Your task to perform on an android device: Go to Android settings Image 0: 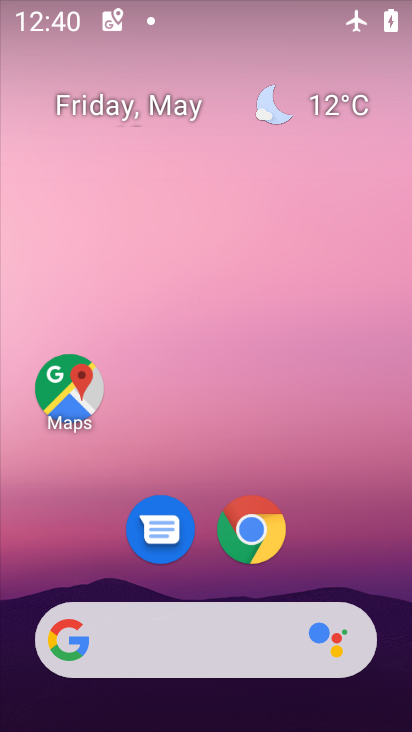
Step 0: click (355, 549)
Your task to perform on an android device: Go to Android settings Image 1: 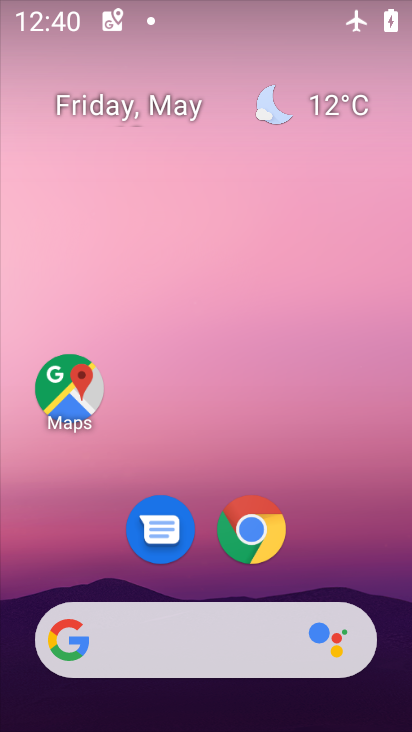
Step 1: drag from (326, 478) to (269, 134)
Your task to perform on an android device: Go to Android settings Image 2: 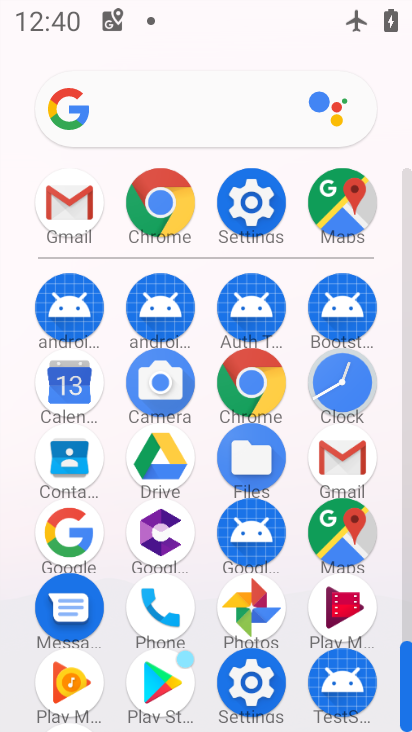
Step 2: click (242, 207)
Your task to perform on an android device: Go to Android settings Image 3: 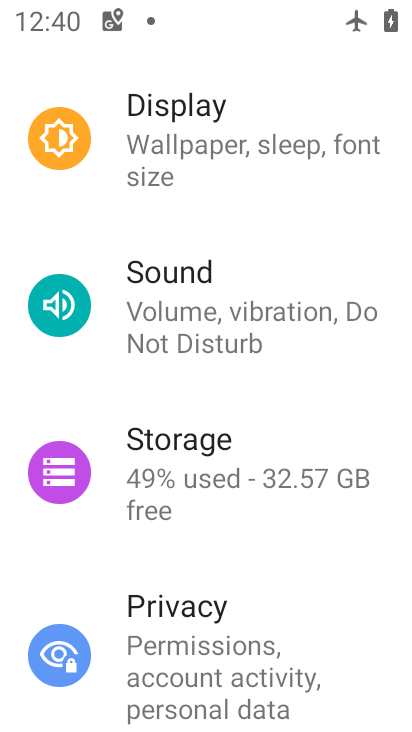
Step 3: drag from (276, 657) to (274, 149)
Your task to perform on an android device: Go to Android settings Image 4: 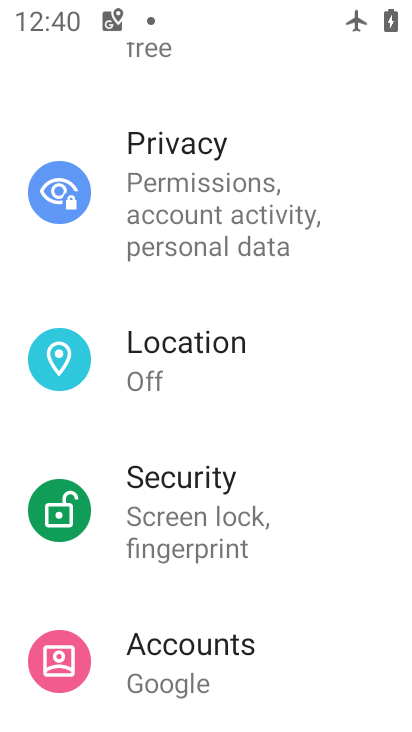
Step 4: drag from (321, 525) to (319, 298)
Your task to perform on an android device: Go to Android settings Image 5: 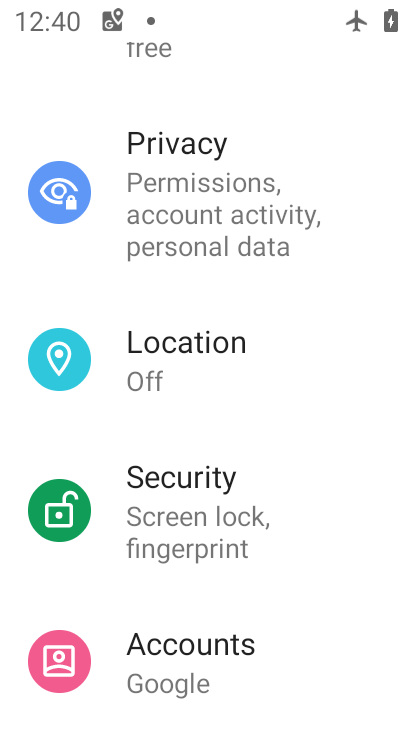
Step 5: click (280, 221)
Your task to perform on an android device: Go to Android settings Image 6: 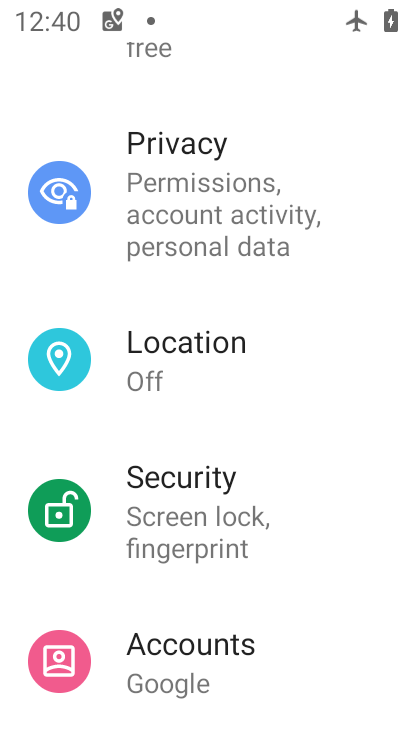
Step 6: drag from (244, 494) to (260, 294)
Your task to perform on an android device: Go to Android settings Image 7: 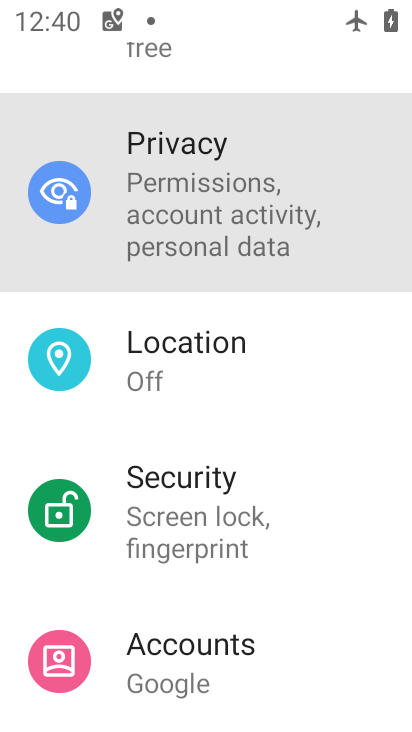
Step 7: drag from (220, 582) to (248, 213)
Your task to perform on an android device: Go to Android settings Image 8: 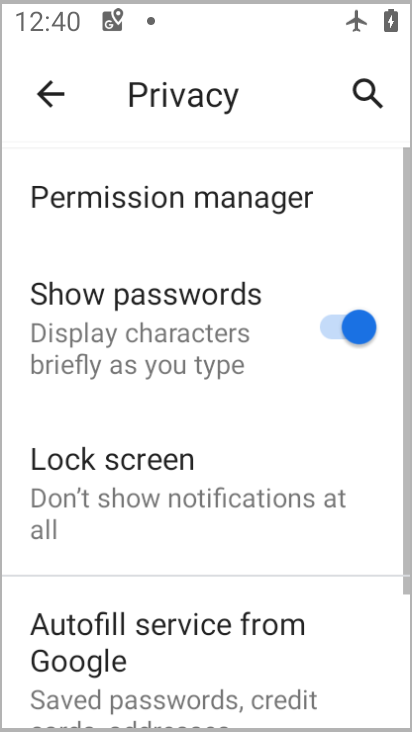
Step 8: drag from (160, 489) to (195, 276)
Your task to perform on an android device: Go to Android settings Image 9: 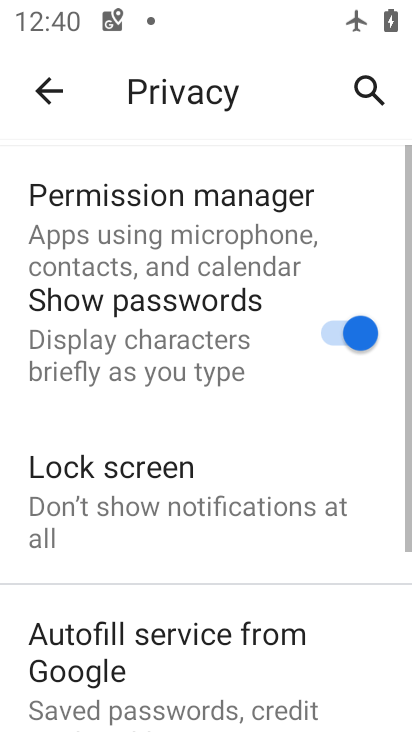
Step 9: drag from (200, 682) to (252, 314)
Your task to perform on an android device: Go to Android settings Image 10: 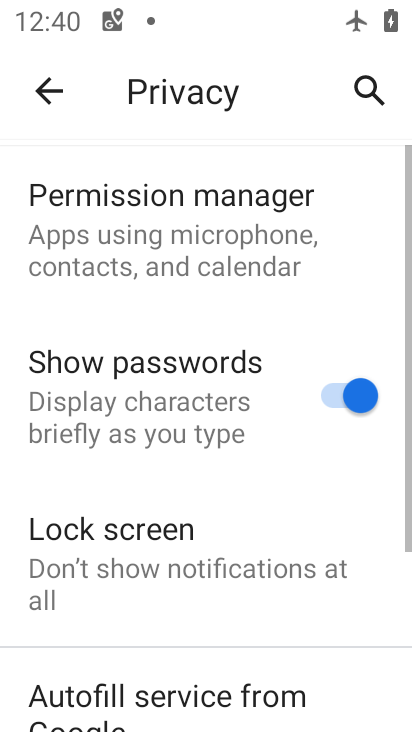
Step 10: drag from (217, 604) to (265, 272)
Your task to perform on an android device: Go to Android settings Image 11: 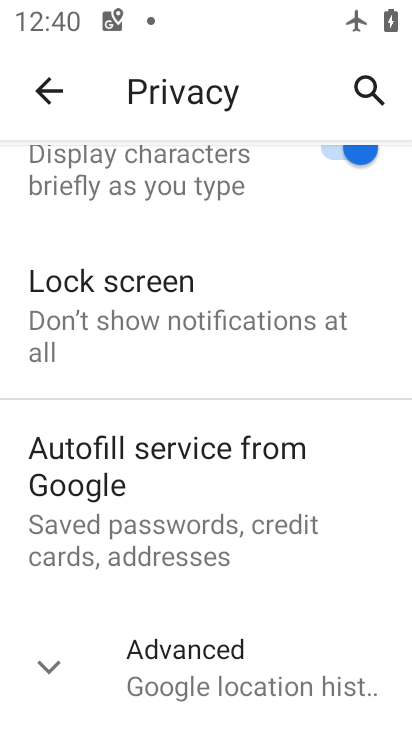
Step 11: click (39, 103)
Your task to perform on an android device: Go to Android settings Image 12: 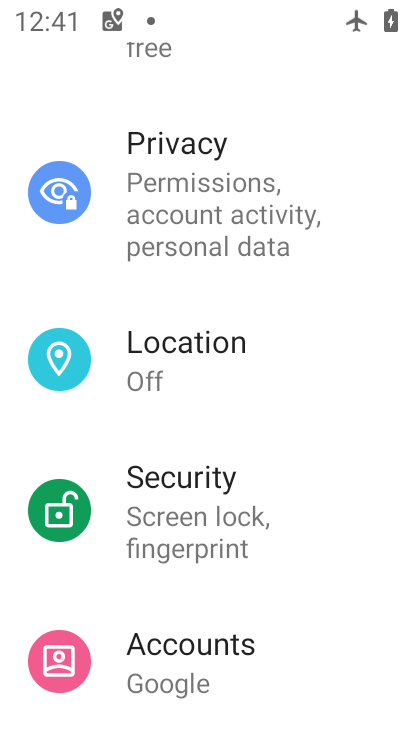
Step 12: task complete